Your task to perform on an android device: Show the shopping cart on walmart.com. Add "dell xps" to the cart on walmart.com Image 0: 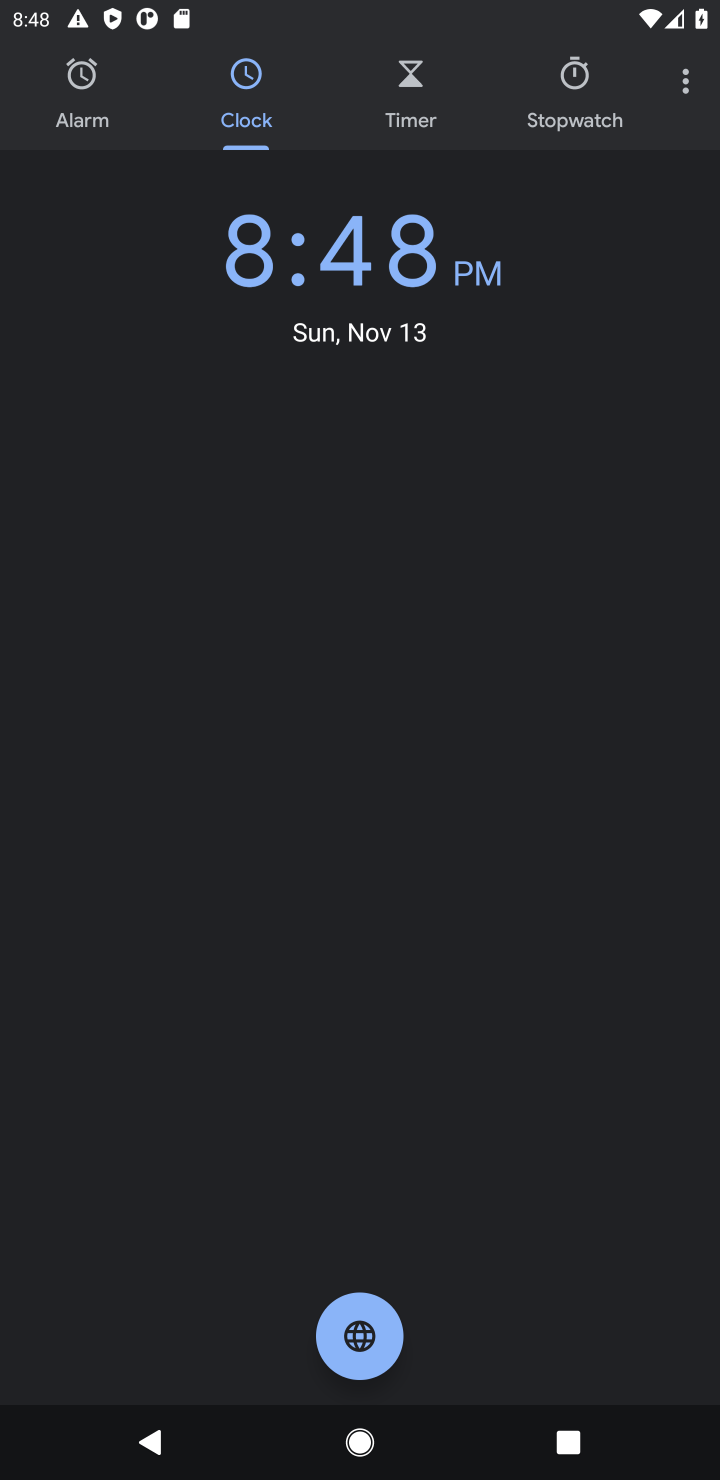
Step 0: press home button
Your task to perform on an android device: Show the shopping cart on walmart.com. Add "dell xps" to the cart on walmart.com Image 1: 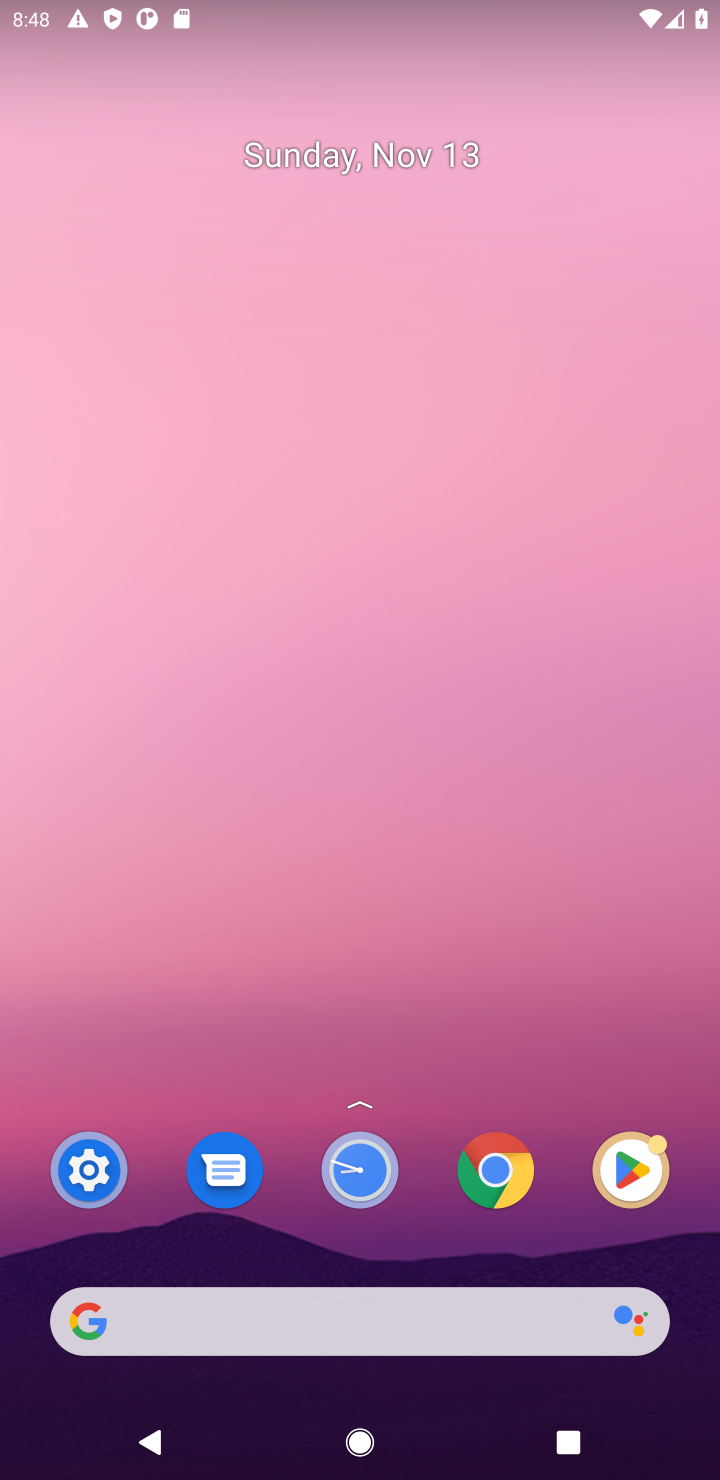
Step 1: click (186, 1307)
Your task to perform on an android device: Show the shopping cart on walmart.com. Add "dell xps" to the cart on walmart.com Image 2: 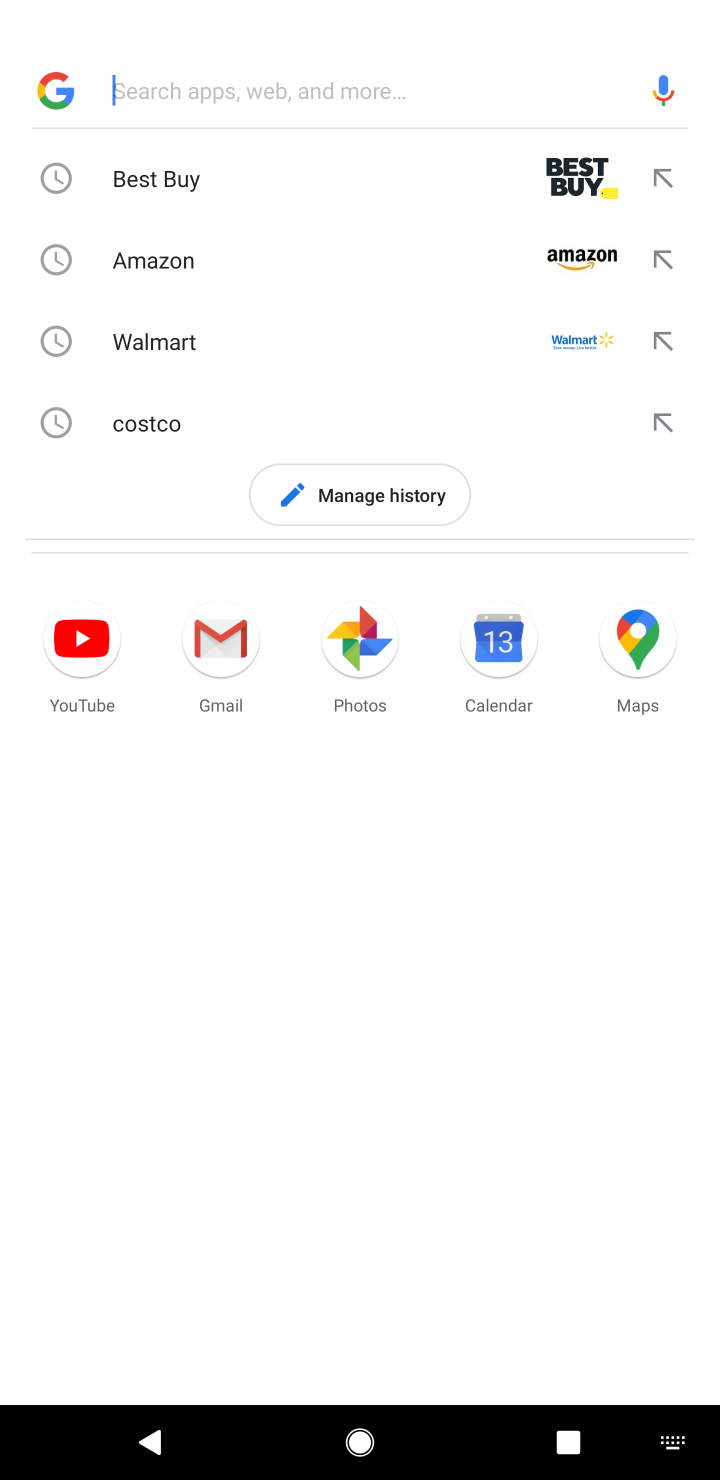
Step 2: type "walmart"
Your task to perform on an android device: Show the shopping cart on walmart.com. Add "dell xps" to the cart on walmart.com Image 3: 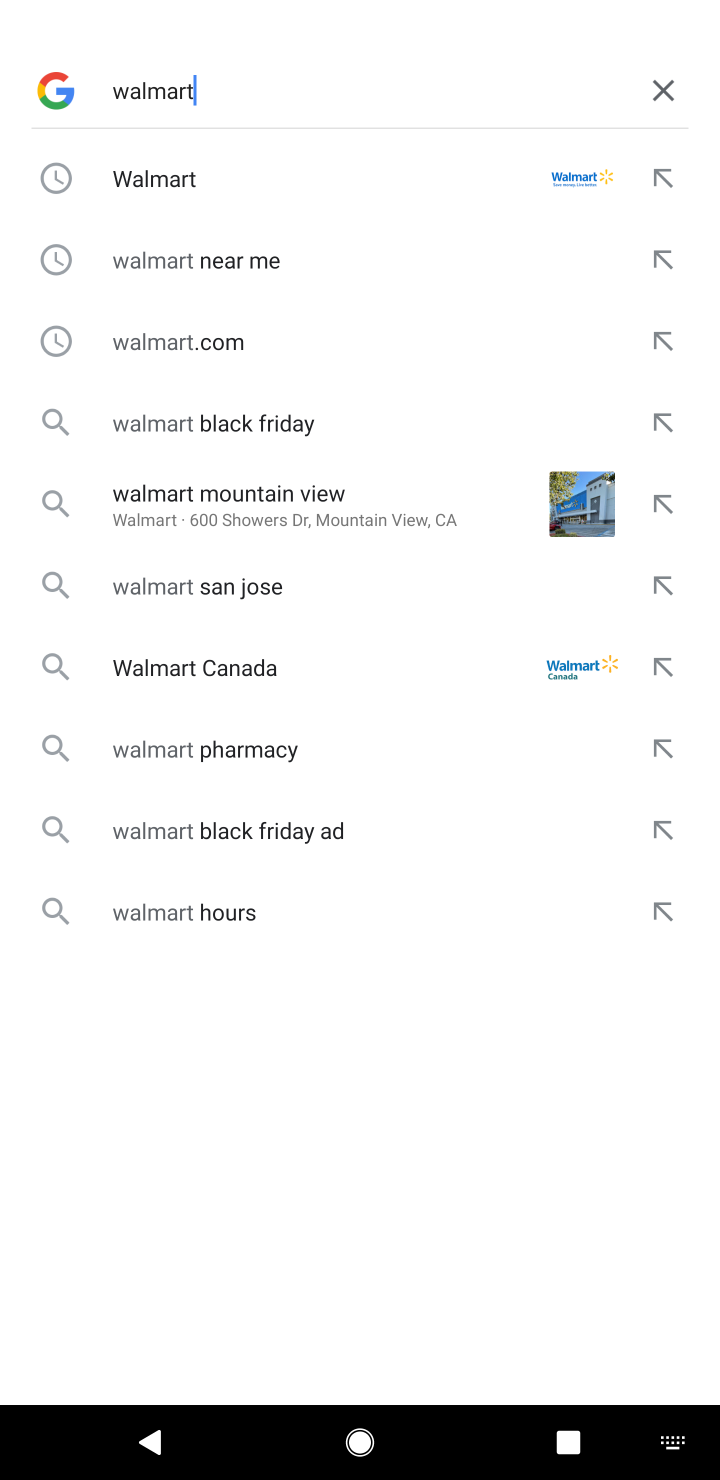
Step 3: click (247, 196)
Your task to perform on an android device: Show the shopping cart on walmart.com. Add "dell xps" to the cart on walmart.com Image 4: 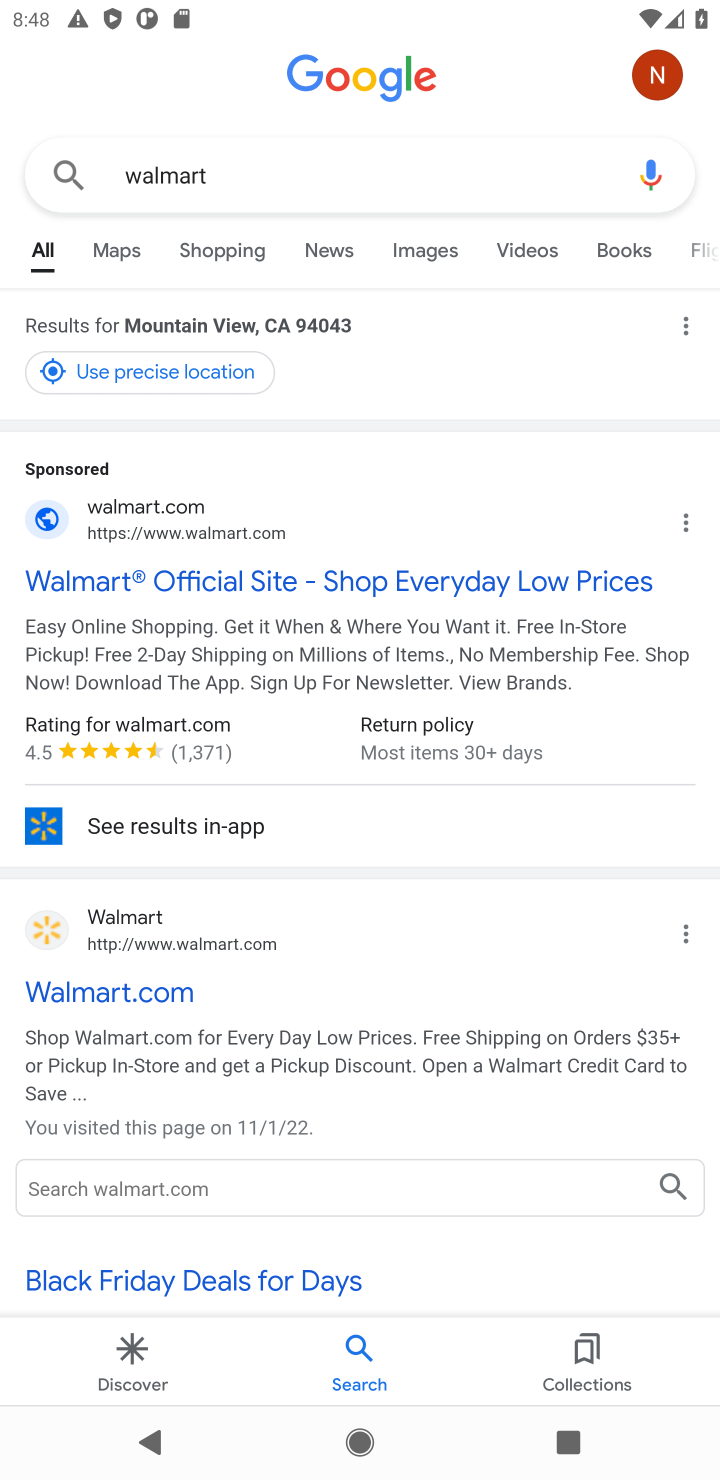
Step 4: click (252, 596)
Your task to perform on an android device: Show the shopping cart on walmart.com. Add "dell xps" to the cart on walmart.com Image 5: 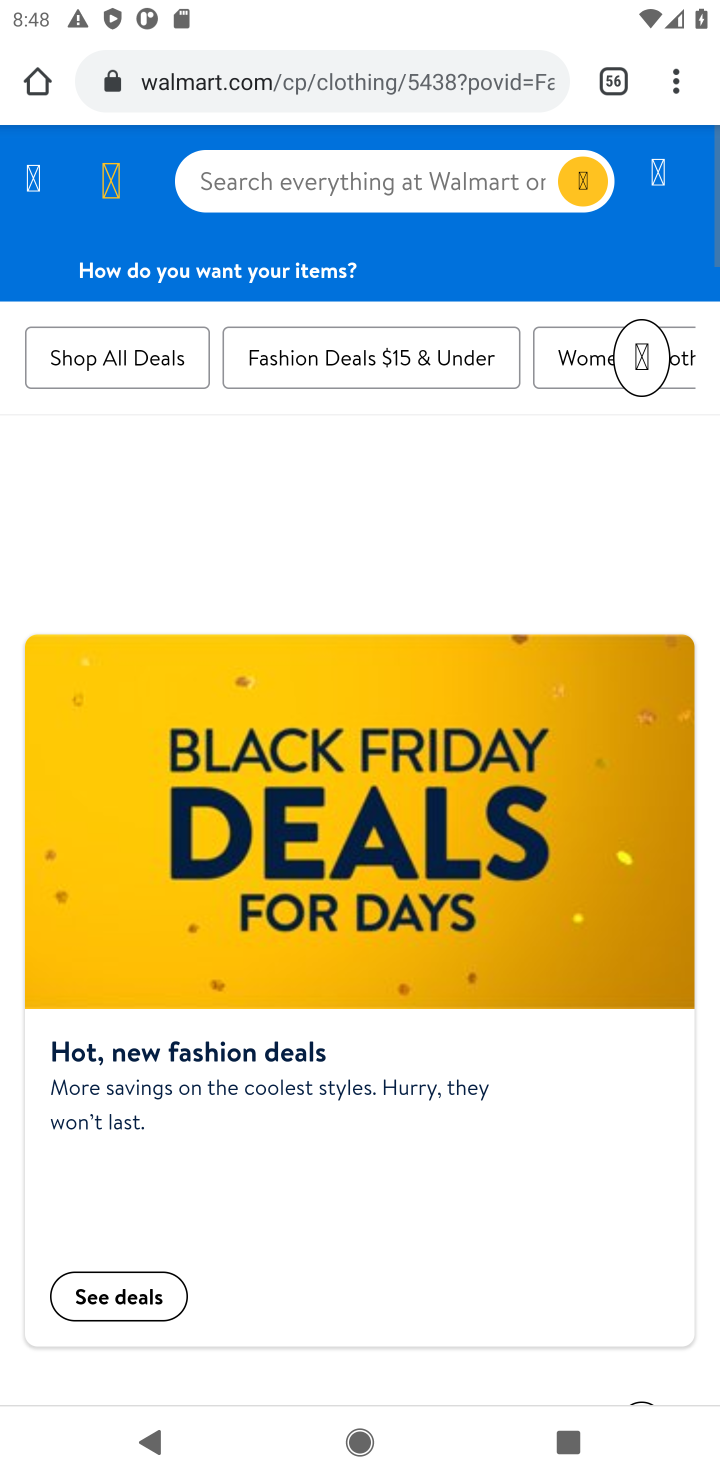
Step 5: task complete